Your task to perform on an android device: Go to network settings Image 0: 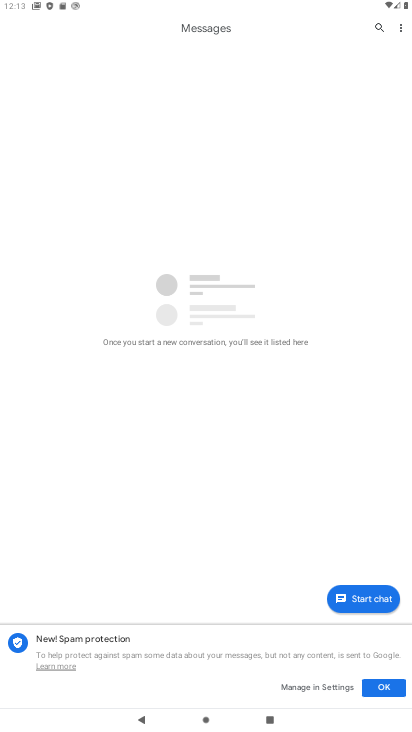
Step 0: press home button
Your task to perform on an android device: Go to network settings Image 1: 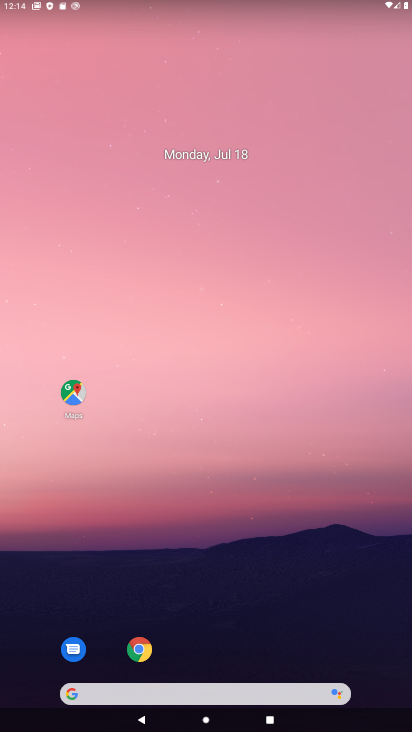
Step 1: drag from (370, 662) to (312, 74)
Your task to perform on an android device: Go to network settings Image 2: 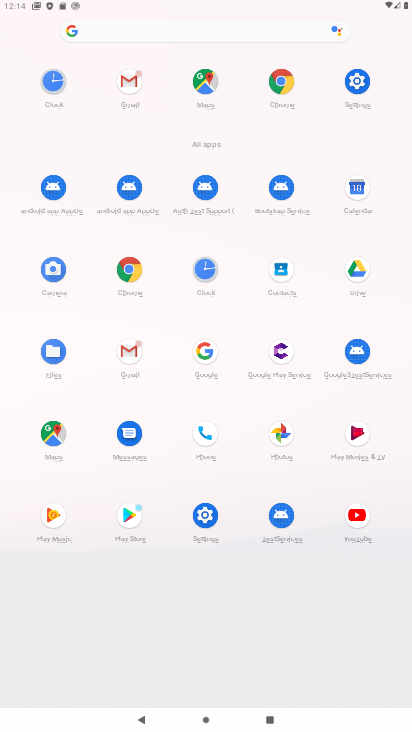
Step 2: click (205, 513)
Your task to perform on an android device: Go to network settings Image 3: 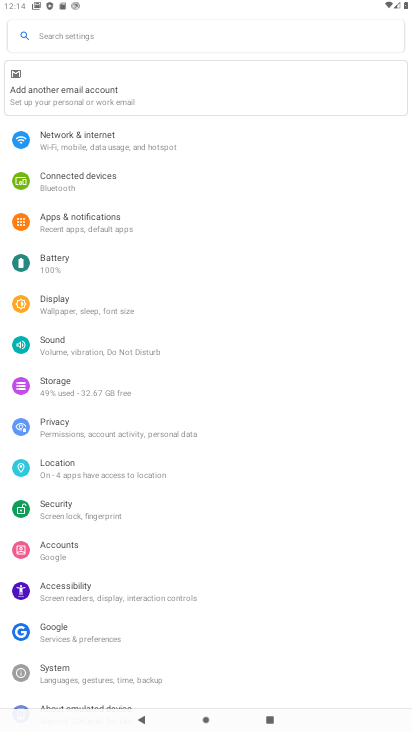
Step 3: click (50, 135)
Your task to perform on an android device: Go to network settings Image 4: 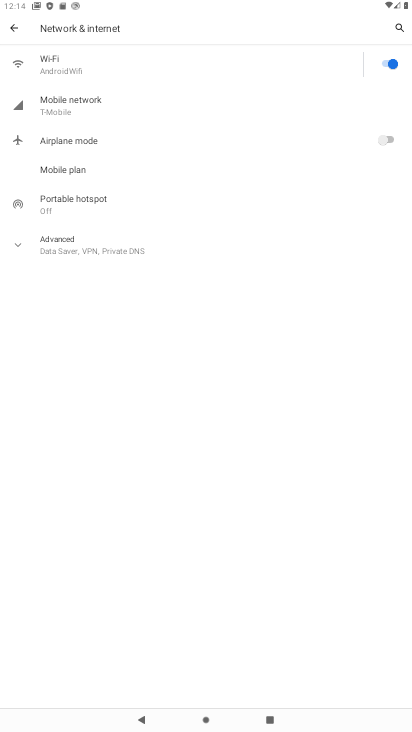
Step 4: click (56, 98)
Your task to perform on an android device: Go to network settings Image 5: 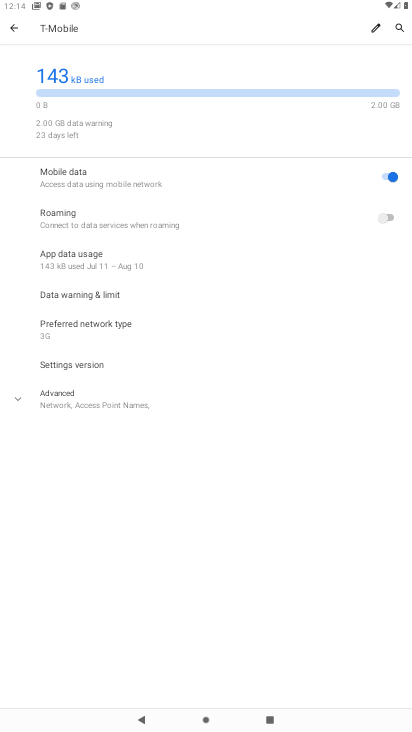
Step 5: click (22, 397)
Your task to perform on an android device: Go to network settings Image 6: 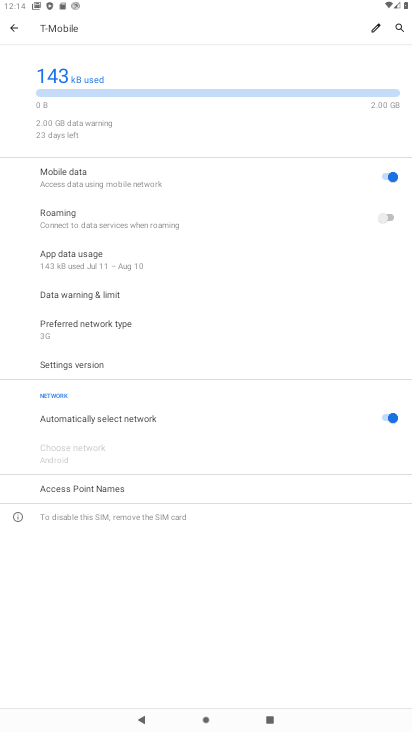
Step 6: task complete